Your task to perform on an android device: turn on the 24-hour format for clock Image 0: 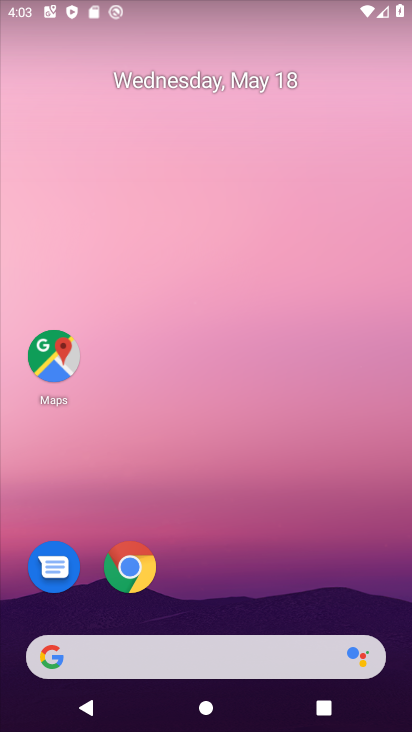
Step 0: drag from (259, 415) to (260, 98)
Your task to perform on an android device: turn on the 24-hour format for clock Image 1: 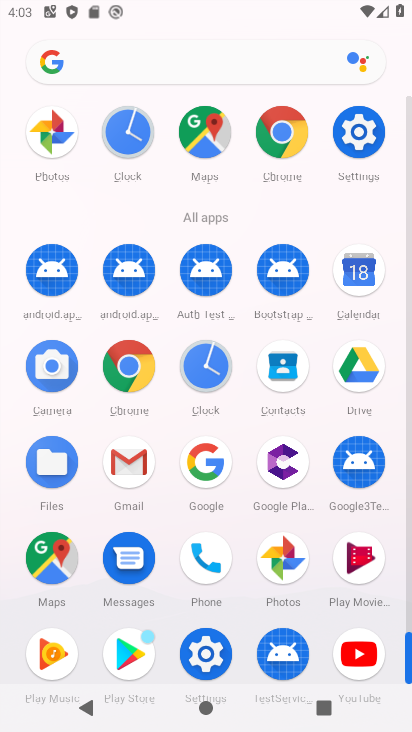
Step 1: drag from (208, 658) to (408, 516)
Your task to perform on an android device: turn on the 24-hour format for clock Image 2: 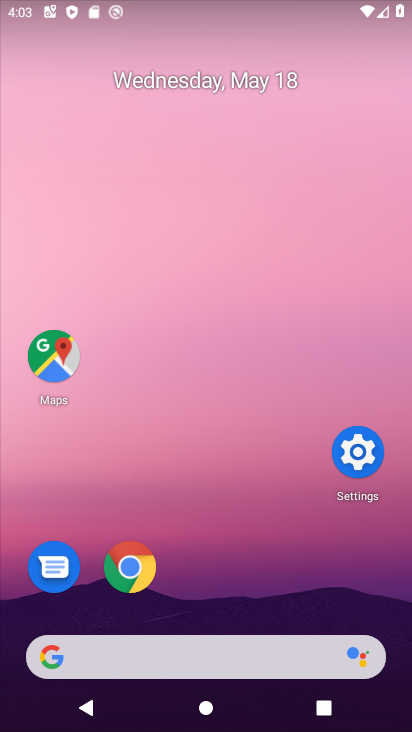
Step 2: drag from (271, 592) to (330, 131)
Your task to perform on an android device: turn on the 24-hour format for clock Image 3: 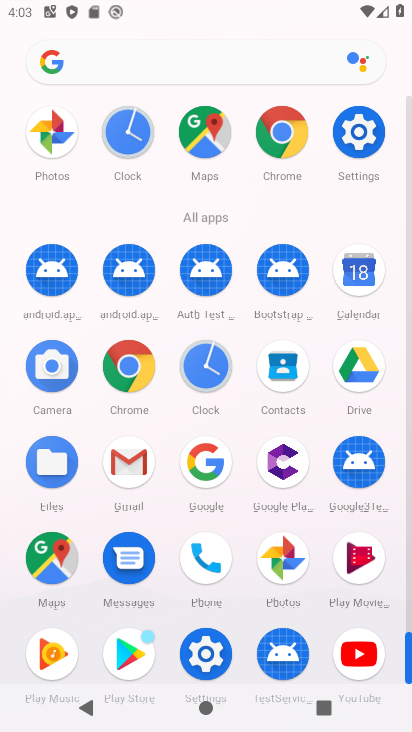
Step 3: click (207, 374)
Your task to perform on an android device: turn on the 24-hour format for clock Image 4: 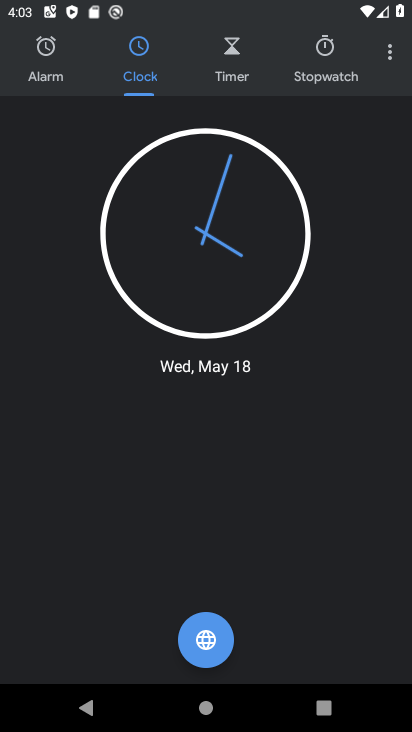
Step 4: click (388, 50)
Your task to perform on an android device: turn on the 24-hour format for clock Image 5: 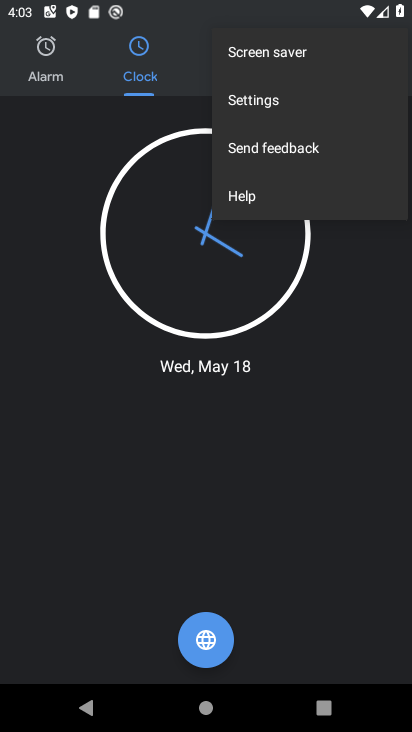
Step 5: click (258, 103)
Your task to perform on an android device: turn on the 24-hour format for clock Image 6: 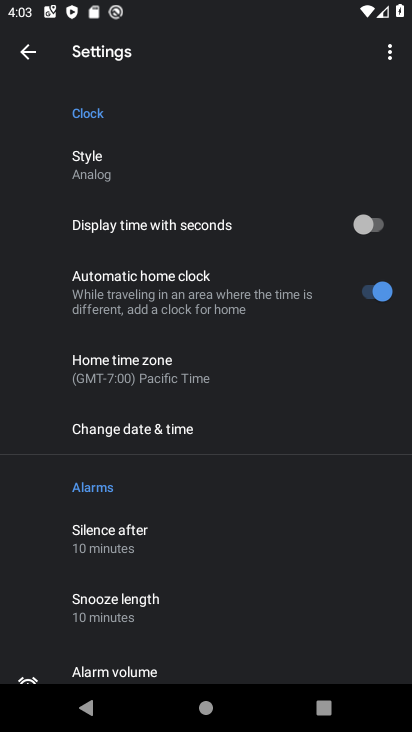
Step 6: click (183, 427)
Your task to perform on an android device: turn on the 24-hour format for clock Image 7: 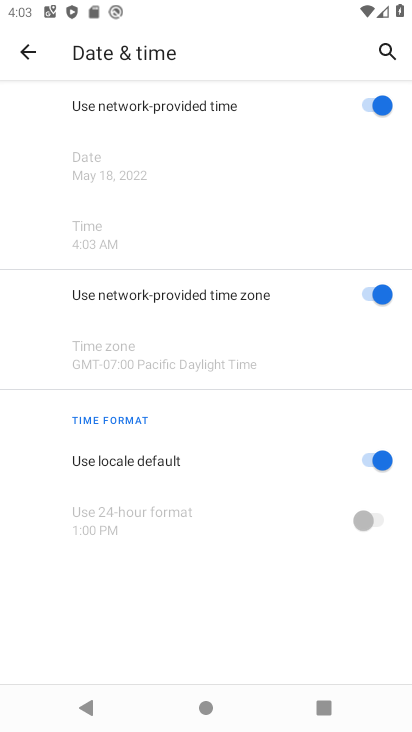
Step 7: click (366, 455)
Your task to perform on an android device: turn on the 24-hour format for clock Image 8: 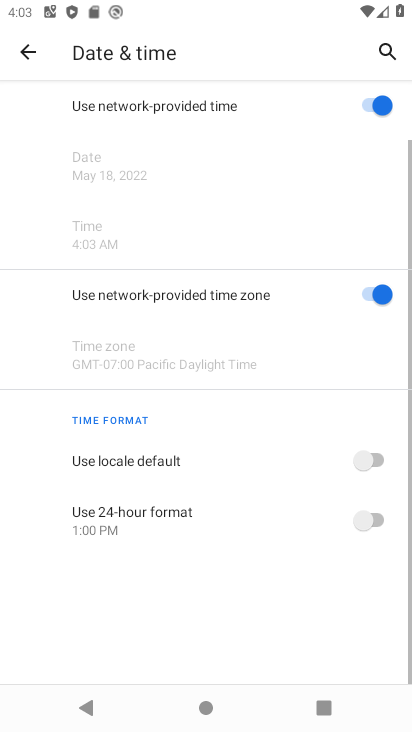
Step 8: click (371, 524)
Your task to perform on an android device: turn on the 24-hour format for clock Image 9: 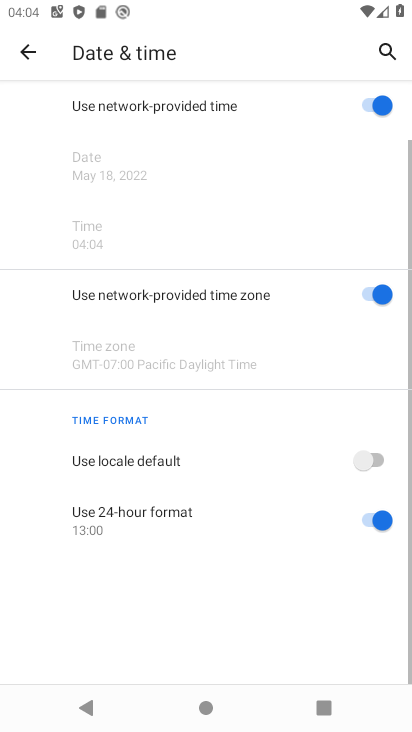
Step 9: task complete